Your task to perform on an android device: turn on bluetooth scan Image 0: 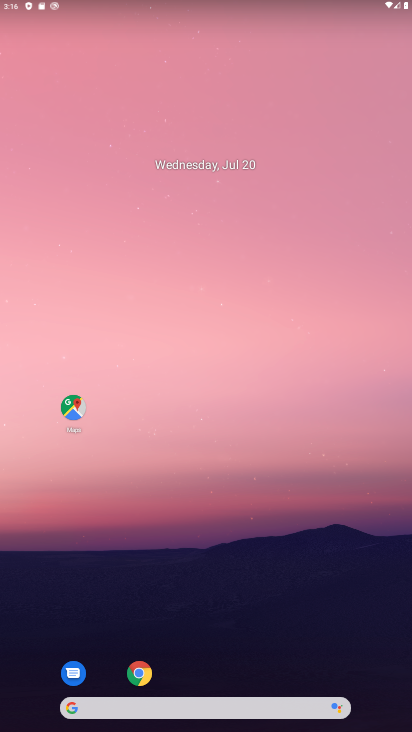
Step 0: click (143, 122)
Your task to perform on an android device: turn on bluetooth scan Image 1: 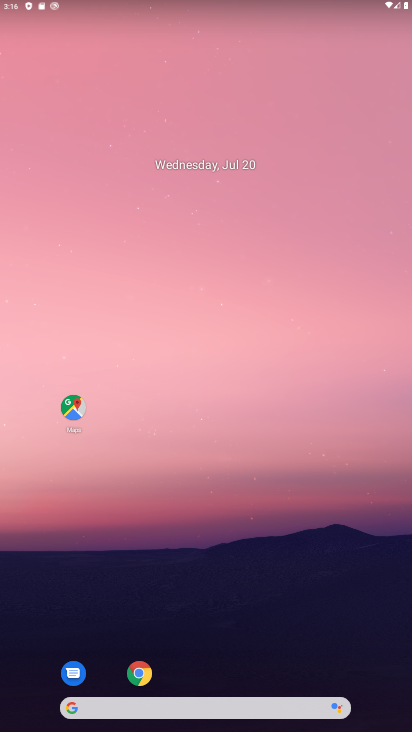
Step 1: drag from (214, 366) to (166, 234)
Your task to perform on an android device: turn on bluetooth scan Image 2: 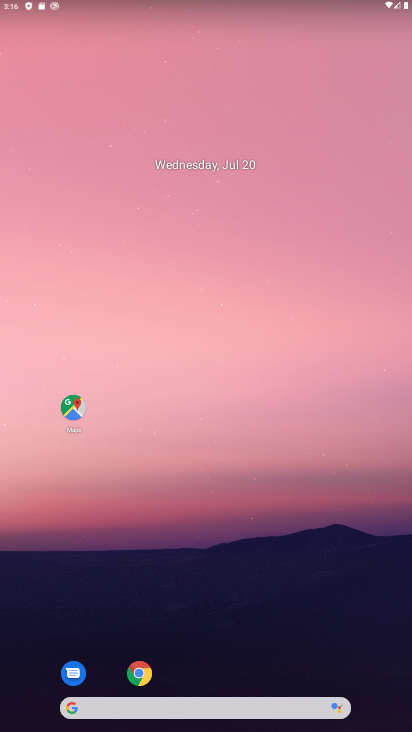
Step 2: drag from (235, 655) to (172, 248)
Your task to perform on an android device: turn on bluetooth scan Image 3: 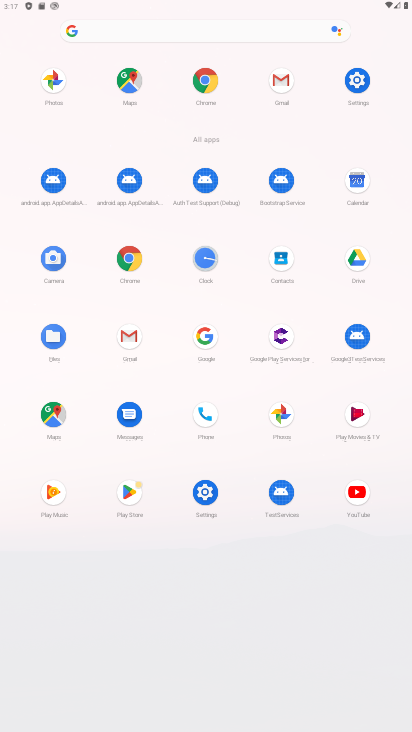
Step 3: click (355, 76)
Your task to perform on an android device: turn on bluetooth scan Image 4: 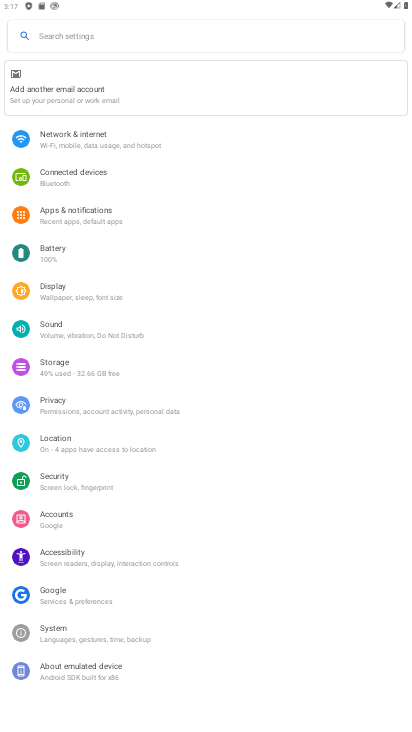
Step 4: click (97, 38)
Your task to perform on an android device: turn on bluetooth scan Image 5: 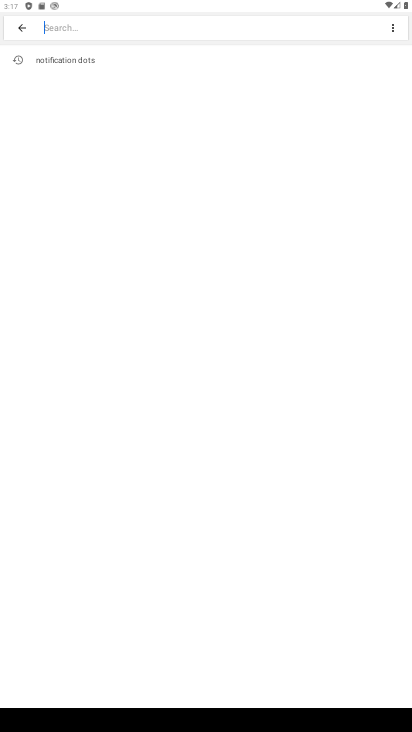
Step 5: click (161, 19)
Your task to perform on an android device: turn on bluetooth scan Image 6: 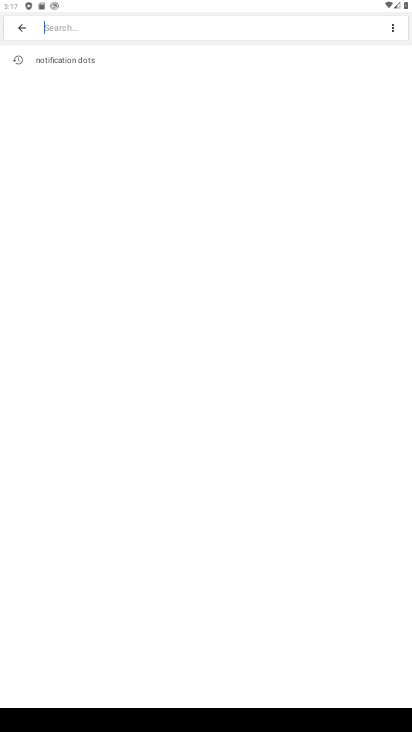
Step 6: type " bluetooth scan "
Your task to perform on an android device: turn on bluetooth scan Image 7: 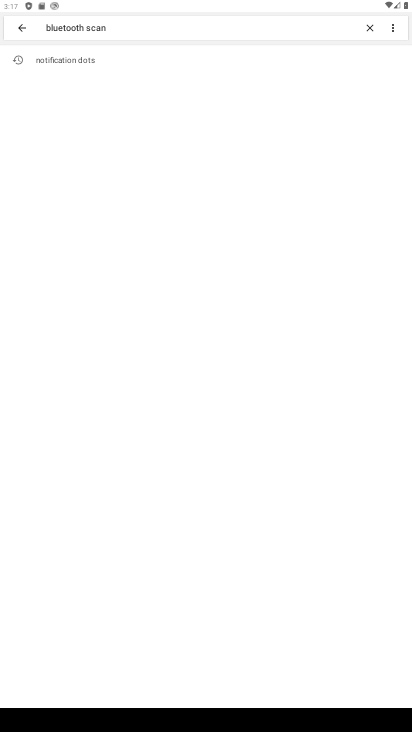
Step 7: click (201, 22)
Your task to perform on an android device: turn on bluetooth scan Image 8: 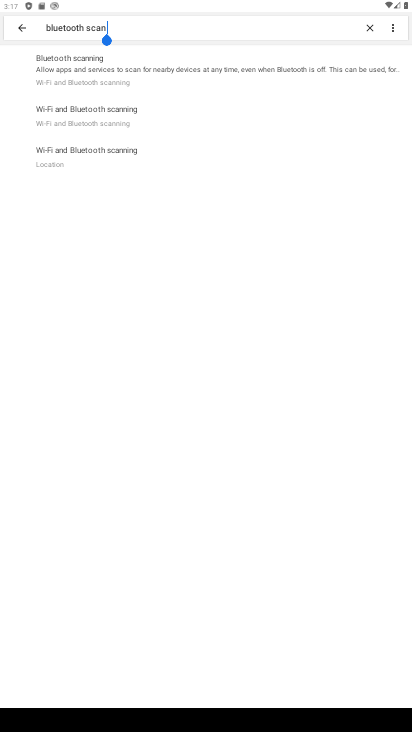
Step 8: click (127, 64)
Your task to perform on an android device: turn on bluetooth scan Image 9: 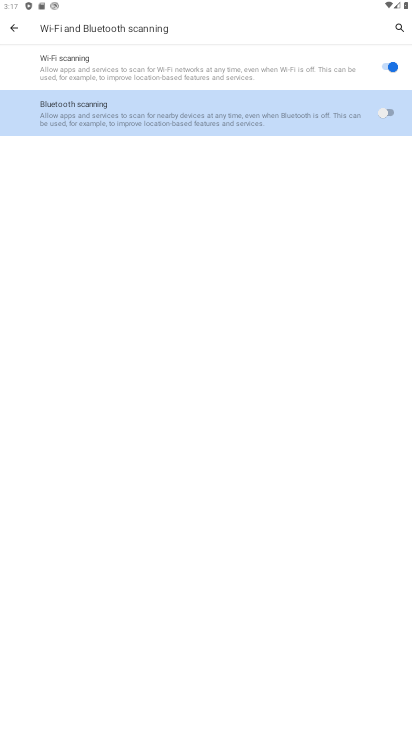
Step 9: click (399, 110)
Your task to perform on an android device: turn on bluetooth scan Image 10: 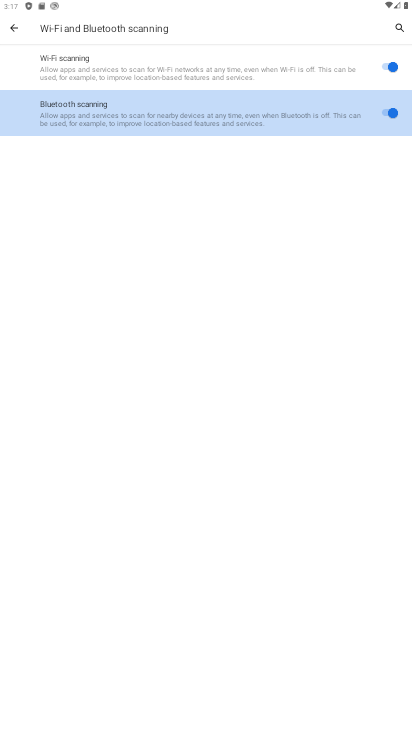
Step 10: task complete